Your task to perform on an android device: Open sound settings Image 0: 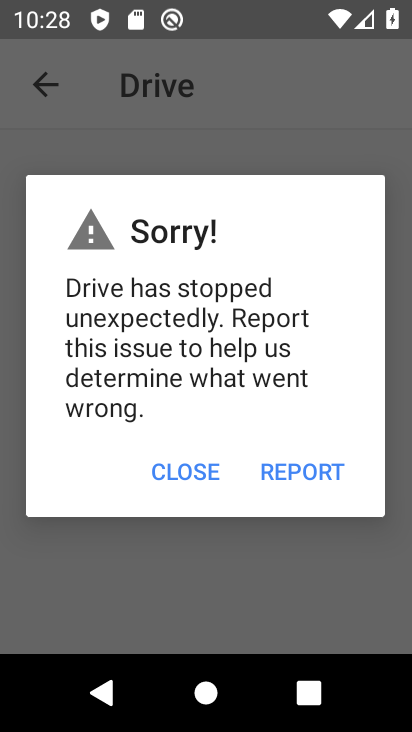
Step 0: press home button
Your task to perform on an android device: Open sound settings Image 1: 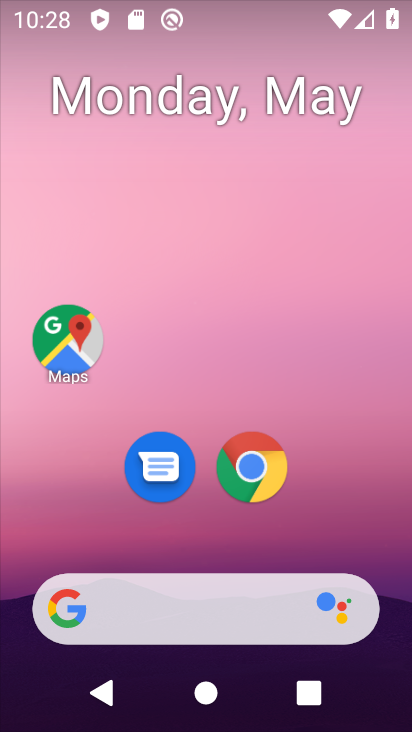
Step 1: drag from (223, 458) to (265, 124)
Your task to perform on an android device: Open sound settings Image 2: 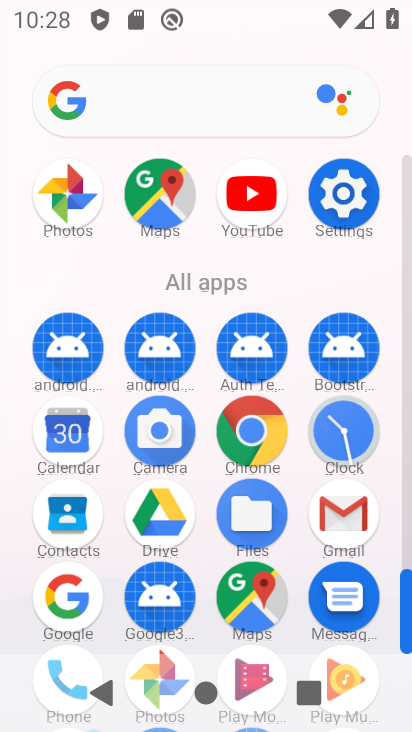
Step 2: click (349, 204)
Your task to perform on an android device: Open sound settings Image 3: 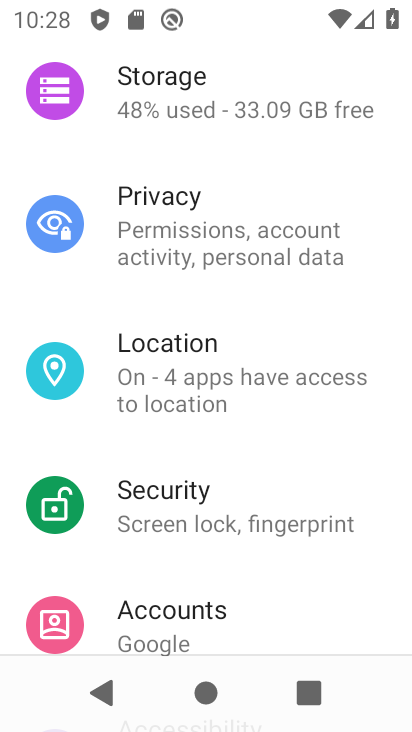
Step 3: drag from (181, 624) to (205, 186)
Your task to perform on an android device: Open sound settings Image 4: 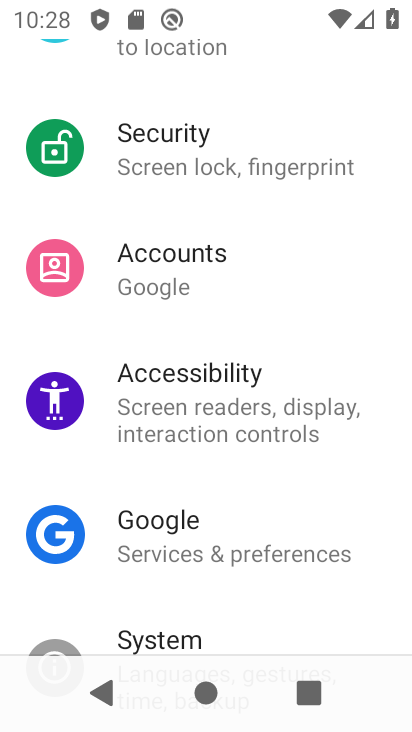
Step 4: drag from (227, 130) to (237, 531)
Your task to perform on an android device: Open sound settings Image 5: 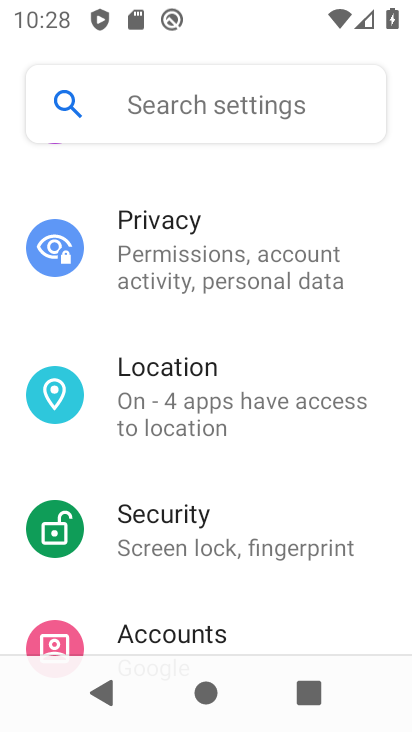
Step 5: drag from (220, 195) to (240, 551)
Your task to perform on an android device: Open sound settings Image 6: 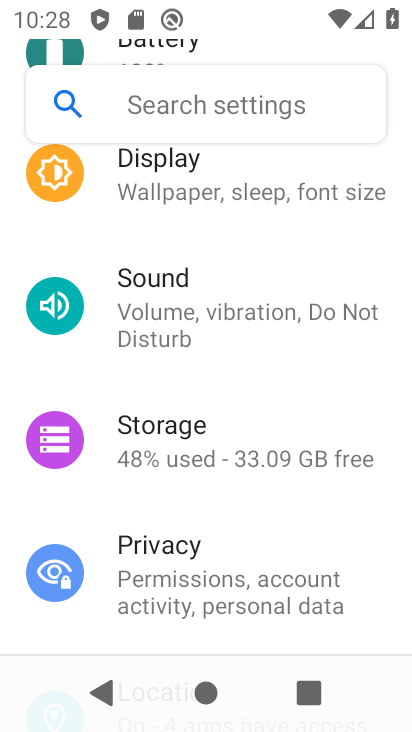
Step 6: click (180, 313)
Your task to perform on an android device: Open sound settings Image 7: 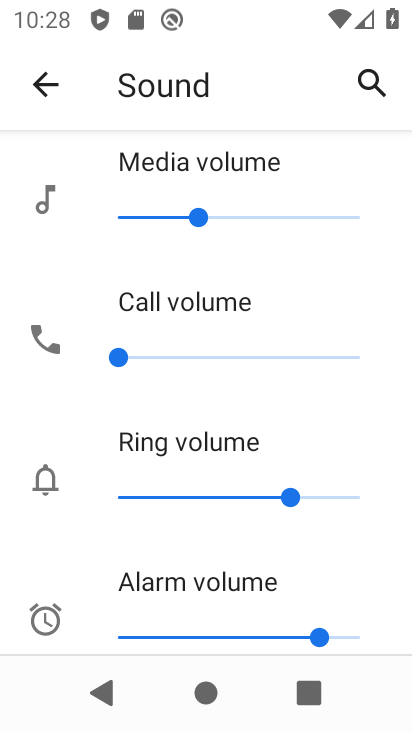
Step 7: task complete